Your task to perform on an android device: all mails in gmail Image 0: 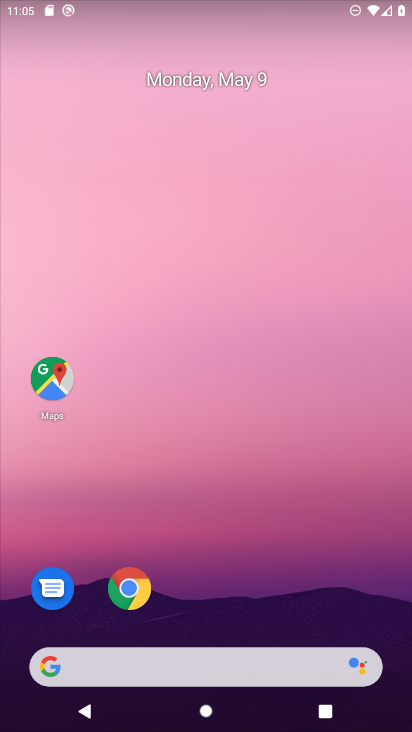
Step 0: drag from (195, 577) to (158, 158)
Your task to perform on an android device: all mails in gmail Image 1: 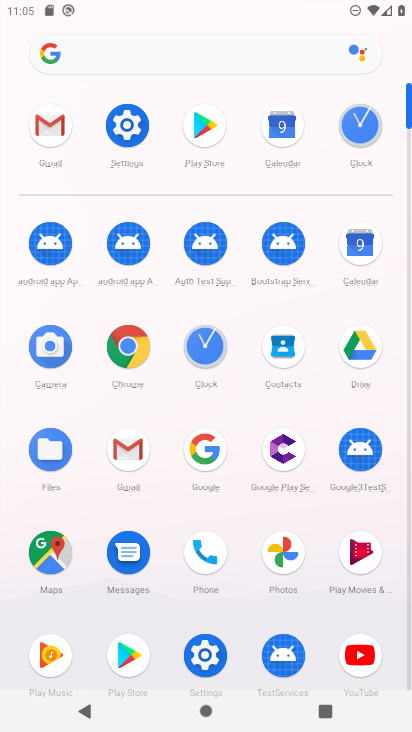
Step 1: click (54, 147)
Your task to perform on an android device: all mails in gmail Image 2: 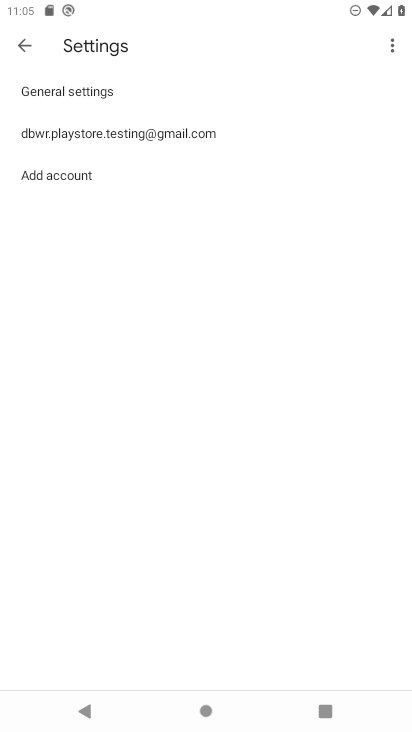
Step 2: click (26, 55)
Your task to perform on an android device: all mails in gmail Image 3: 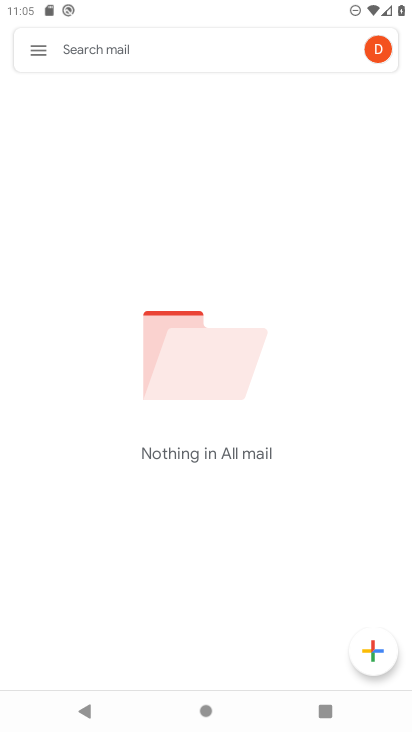
Step 3: click (36, 59)
Your task to perform on an android device: all mails in gmail Image 4: 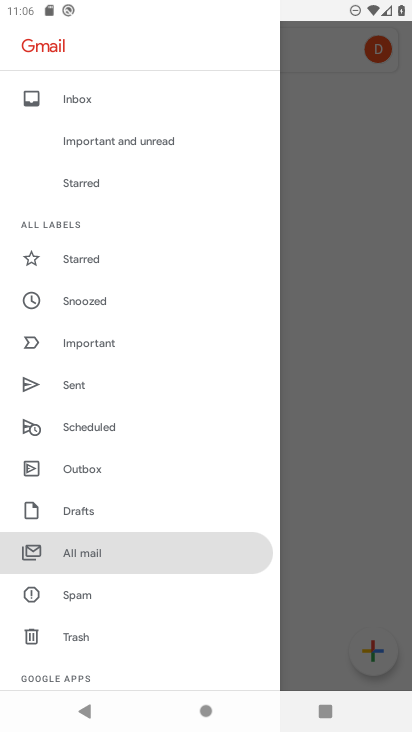
Step 4: click (122, 552)
Your task to perform on an android device: all mails in gmail Image 5: 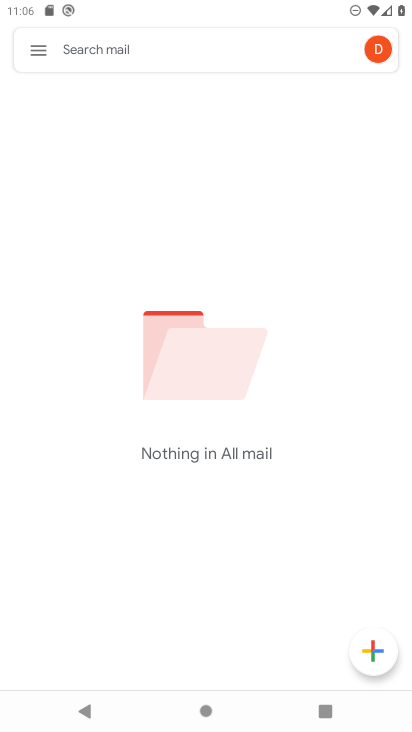
Step 5: task complete